Your task to perform on an android device: Go to Wikipedia Image 0: 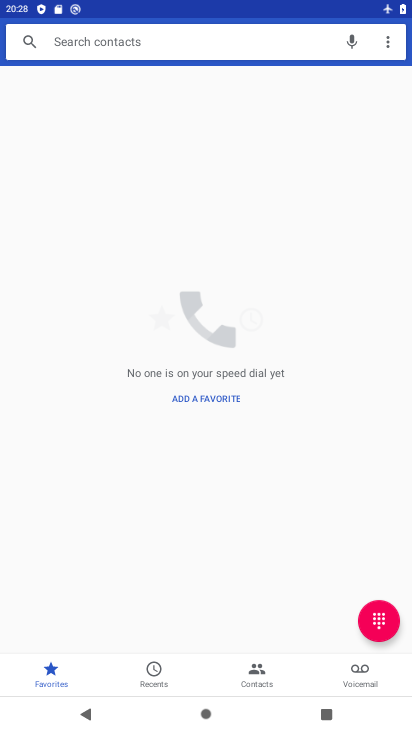
Step 0: press home button
Your task to perform on an android device: Go to Wikipedia Image 1: 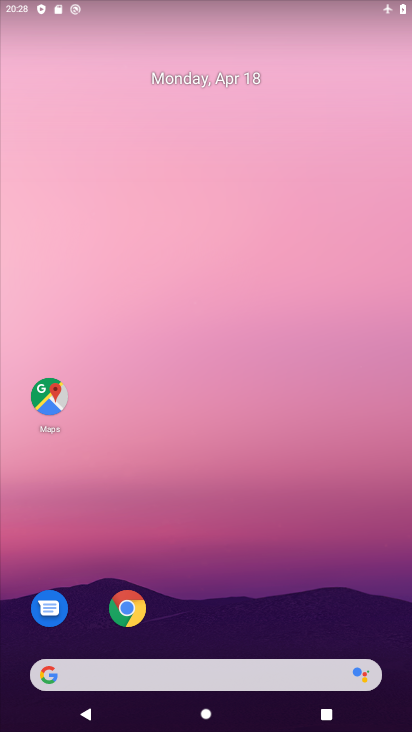
Step 1: drag from (299, 518) to (300, 149)
Your task to perform on an android device: Go to Wikipedia Image 2: 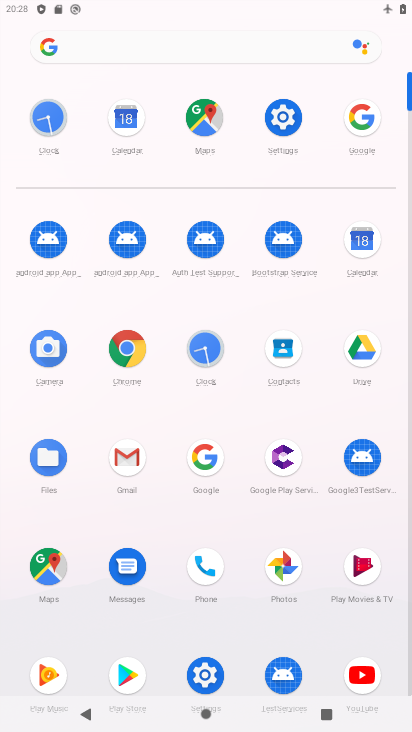
Step 2: click (126, 351)
Your task to perform on an android device: Go to Wikipedia Image 3: 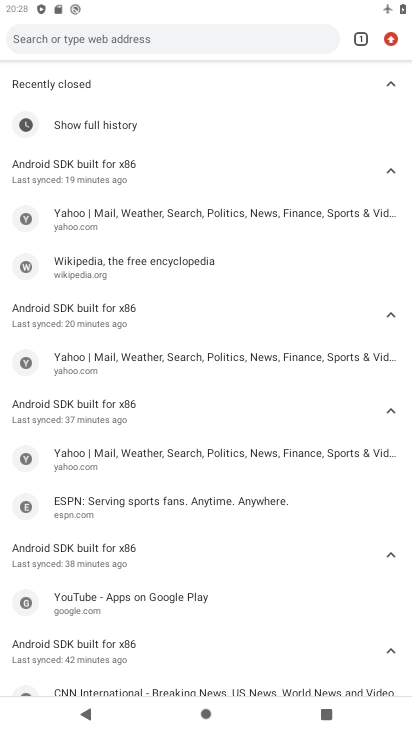
Step 3: press back button
Your task to perform on an android device: Go to Wikipedia Image 4: 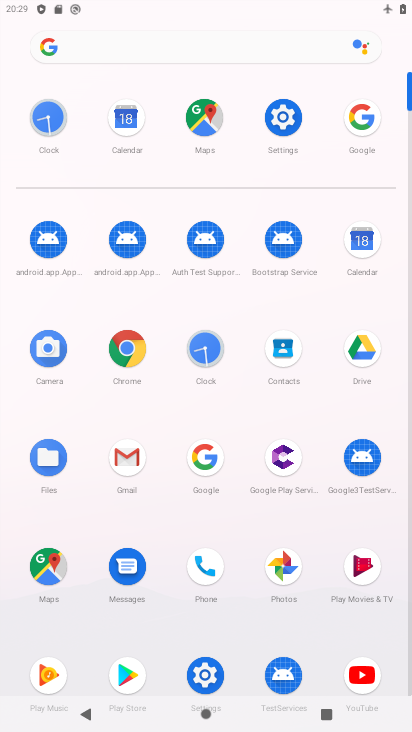
Step 4: click (129, 352)
Your task to perform on an android device: Go to Wikipedia Image 5: 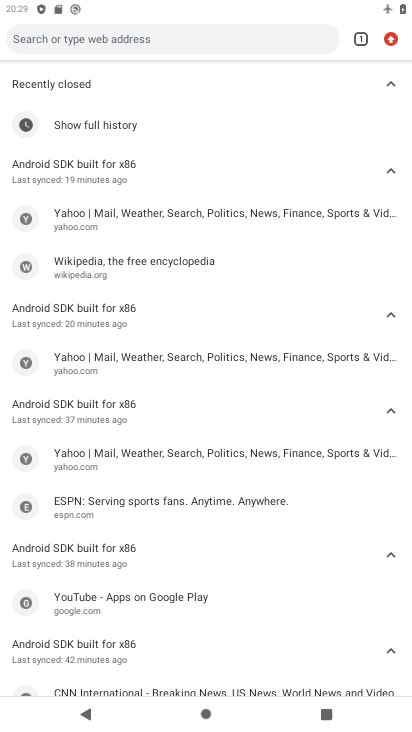
Step 5: press back button
Your task to perform on an android device: Go to Wikipedia Image 6: 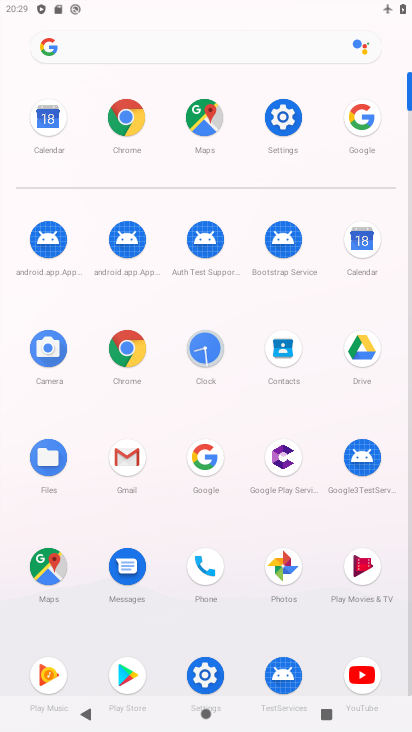
Step 6: click (121, 348)
Your task to perform on an android device: Go to Wikipedia Image 7: 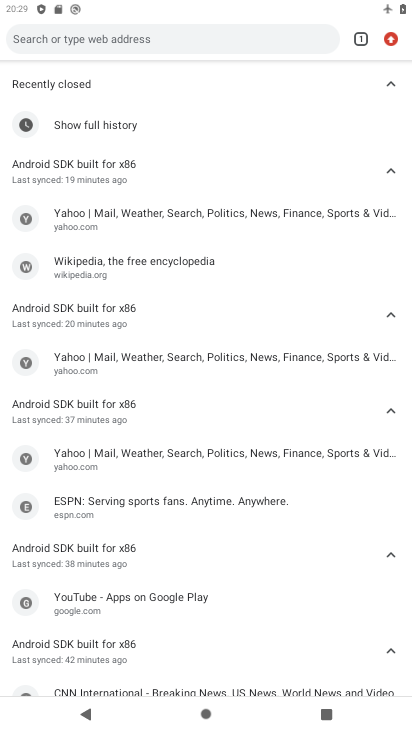
Step 7: click (93, 268)
Your task to perform on an android device: Go to Wikipedia Image 8: 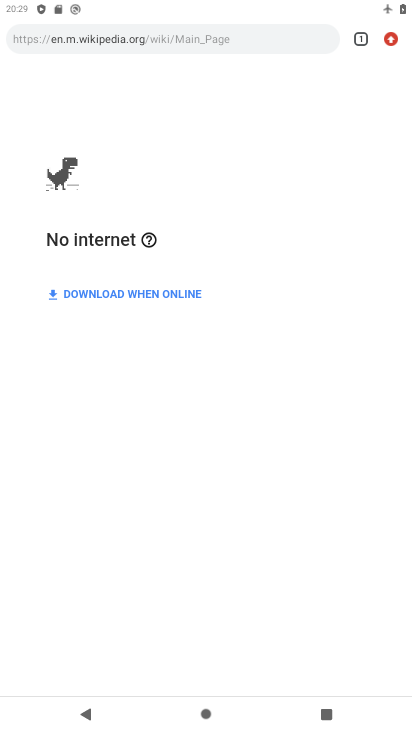
Step 8: task complete